Your task to perform on an android device: Go to display settings Image 0: 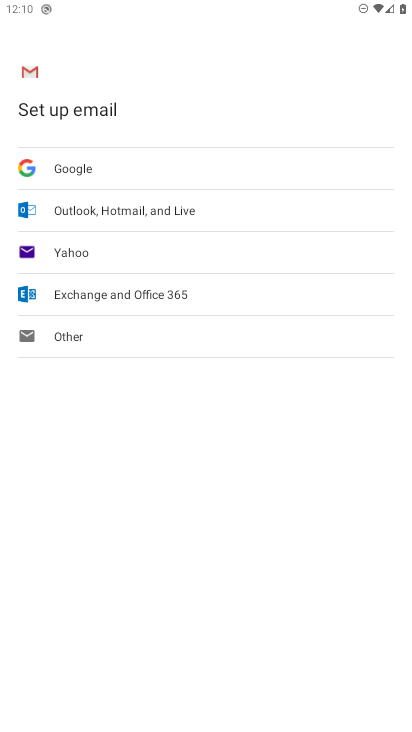
Step 0: press home button
Your task to perform on an android device: Go to display settings Image 1: 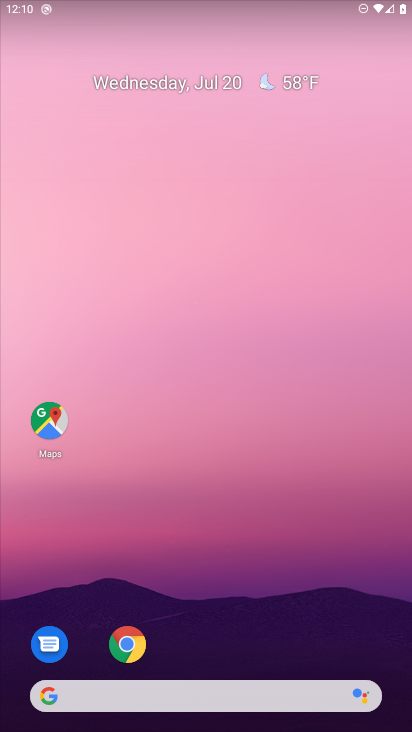
Step 1: drag from (158, 454) to (289, 219)
Your task to perform on an android device: Go to display settings Image 2: 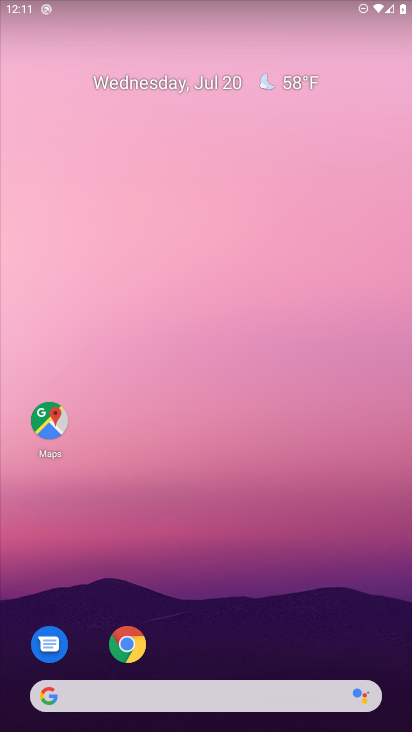
Step 2: drag from (8, 681) to (254, 62)
Your task to perform on an android device: Go to display settings Image 3: 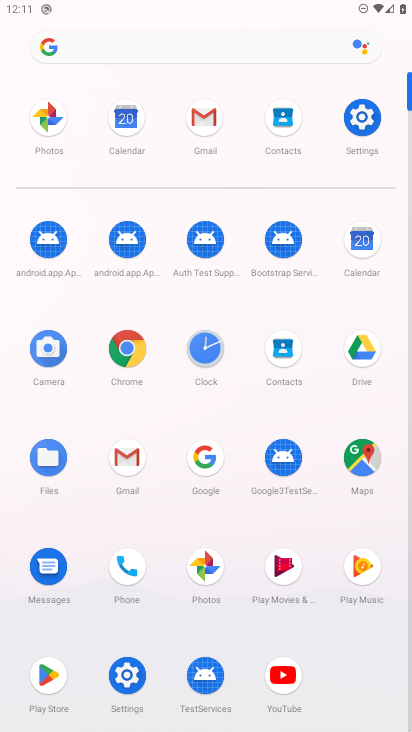
Step 3: click (126, 659)
Your task to perform on an android device: Go to display settings Image 4: 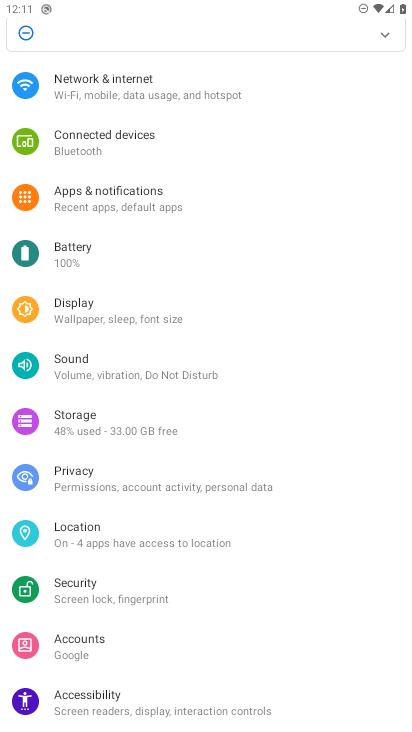
Step 4: click (94, 305)
Your task to perform on an android device: Go to display settings Image 5: 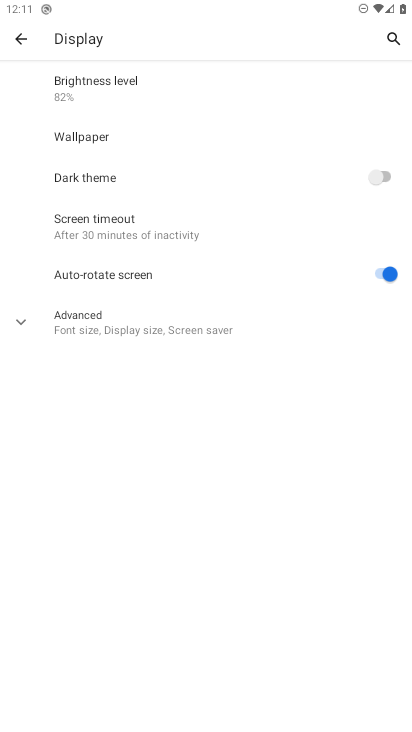
Step 5: task complete